Your task to perform on an android device: Add "usb-c to usb-b" to the cart on newegg Image 0: 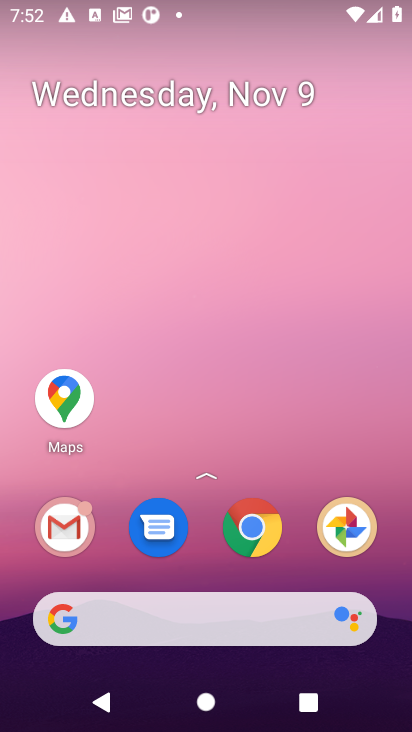
Step 0: click (248, 536)
Your task to perform on an android device: Add "usb-c to usb-b" to the cart on newegg Image 1: 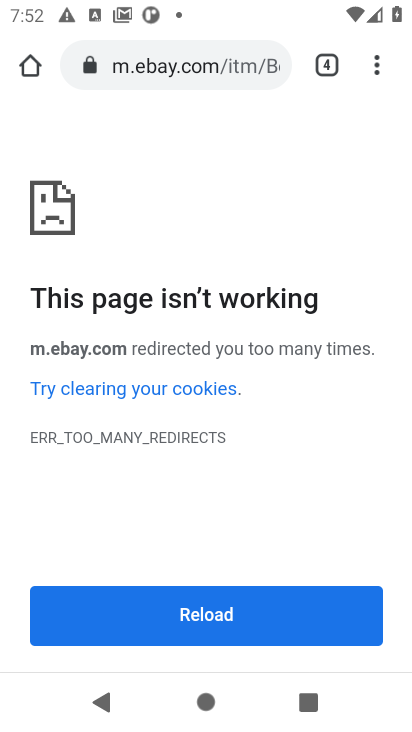
Step 1: click (157, 79)
Your task to perform on an android device: Add "usb-c to usb-b" to the cart on newegg Image 2: 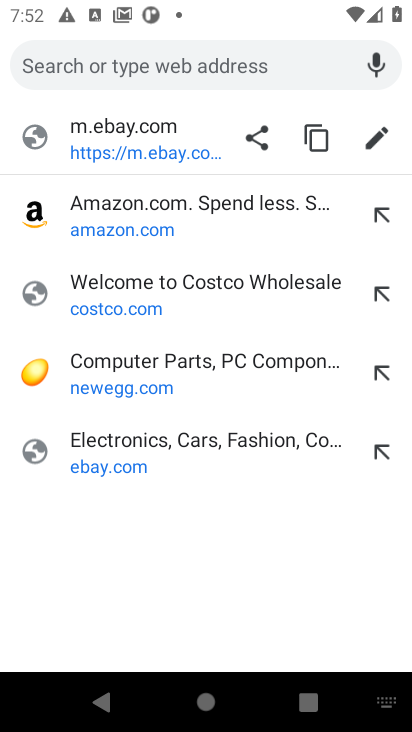
Step 2: click (114, 388)
Your task to perform on an android device: Add "usb-c to usb-b" to the cart on newegg Image 3: 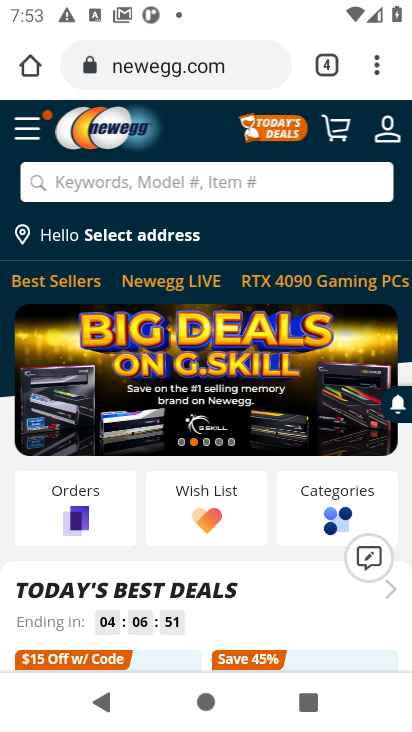
Step 3: click (158, 193)
Your task to perform on an android device: Add "usb-c to usb-b" to the cart on newegg Image 4: 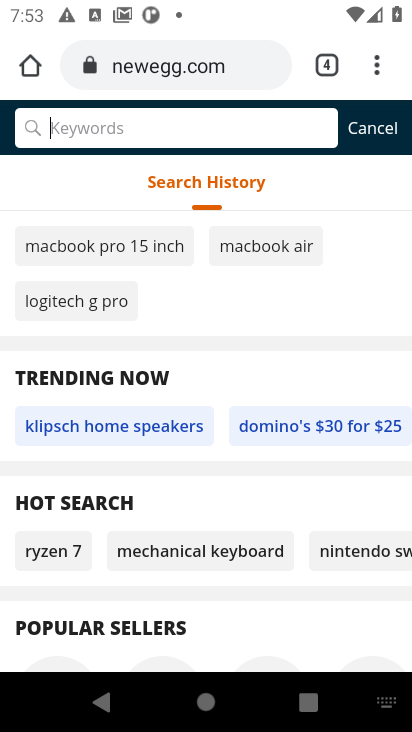
Step 4: click (92, 135)
Your task to perform on an android device: Add "usb-c to usb-b" to the cart on newegg Image 5: 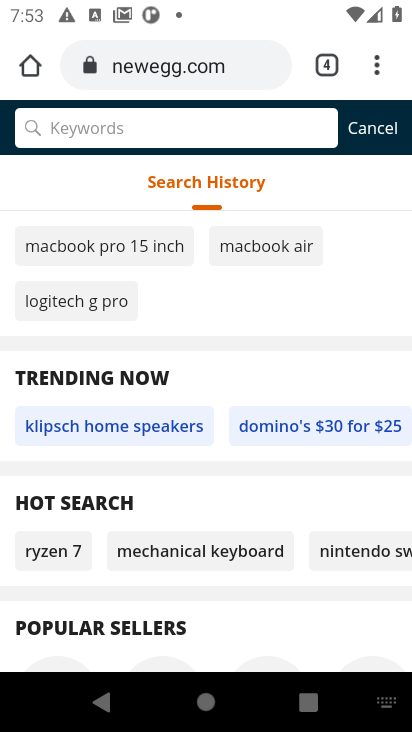
Step 5: type "usb-c to usb-b"
Your task to perform on an android device: Add "usb-c to usb-b" to the cart on newegg Image 6: 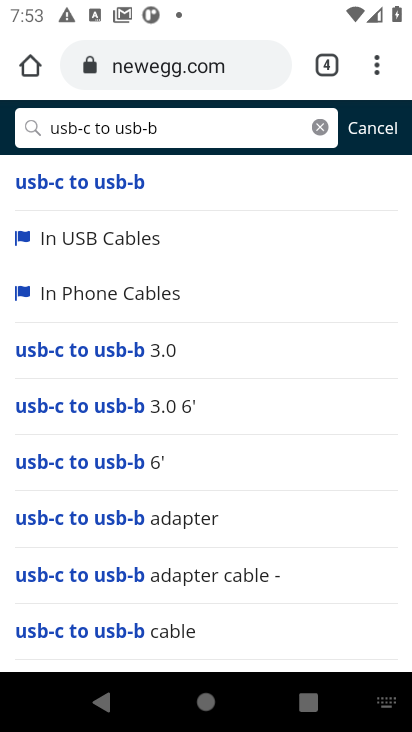
Step 6: click (77, 178)
Your task to perform on an android device: Add "usb-c to usb-b" to the cart on newegg Image 7: 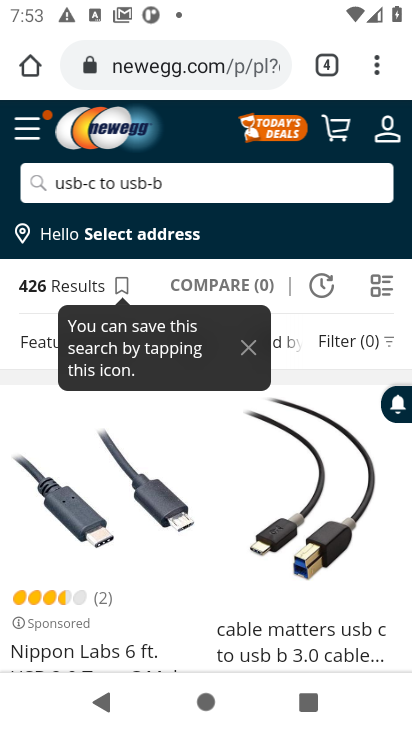
Step 7: drag from (186, 500) to (195, 337)
Your task to perform on an android device: Add "usb-c to usb-b" to the cart on newegg Image 8: 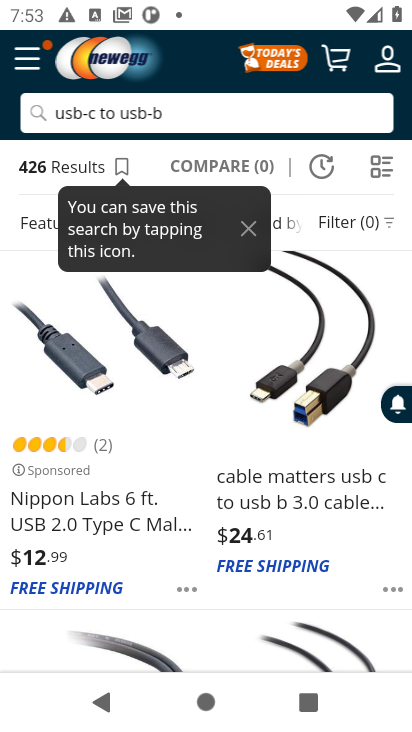
Step 8: click (339, 432)
Your task to perform on an android device: Add "usb-c to usb-b" to the cart on newegg Image 9: 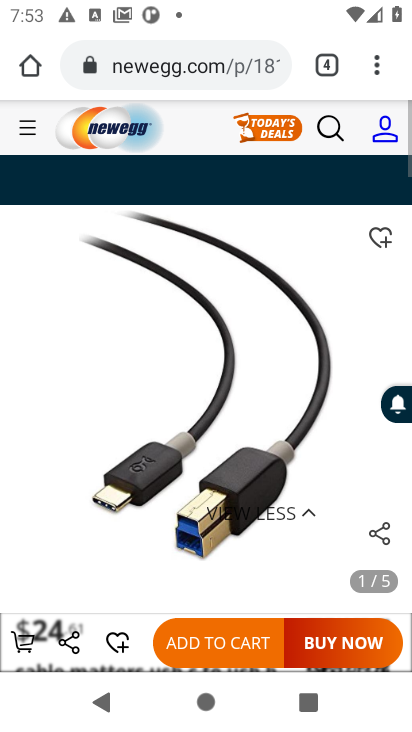
Step 9: click (223, 635)
Your task to perform on an android device: Add "usb-c to usb-b" to the cart on newegg Image 10: 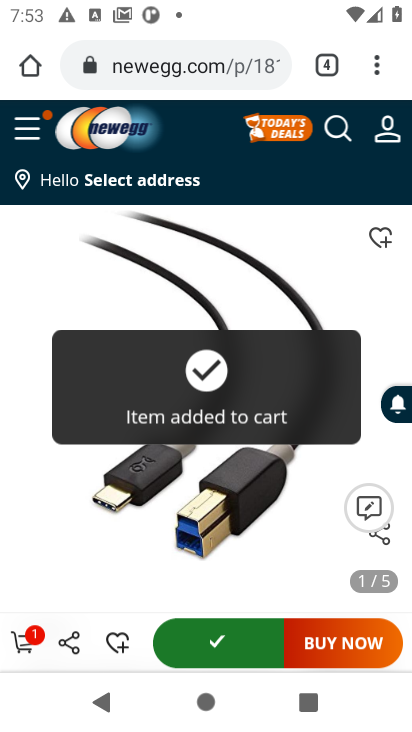
Step 10: task complete